Your task to perform on an android device: turn off improve location accuracy Image 0: 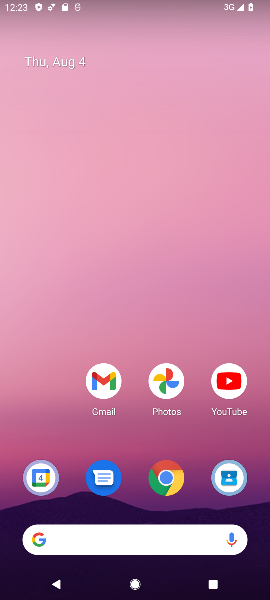
Step 0: drag from (99, 480) to (140, 2)
Your task to perform on an android device: turn off improve location accuracy Image 1: 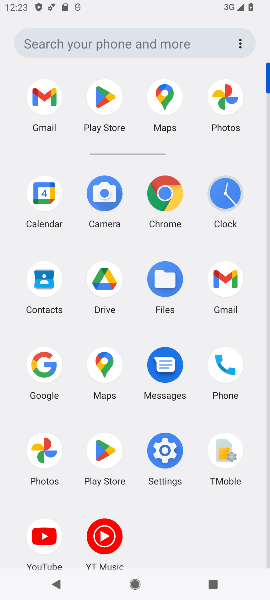
Step 1: click (161, 434)
Your task to perform on an android device: turn off improve location accuracy Image 2: 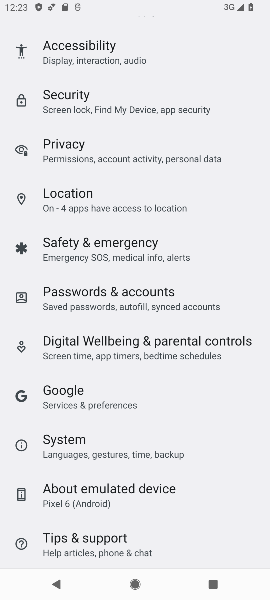
Step 2: drag from (108, 468) to (125, 88)
Your task to perform on an android device: turn off improve location accuracy Image 3: 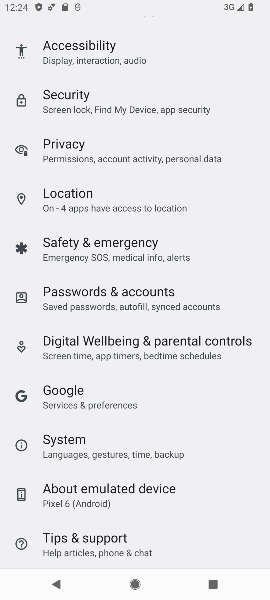
Step 3: click (103, 196)
Your task to perform on an android device: turn off improve location accuracy Image 4: 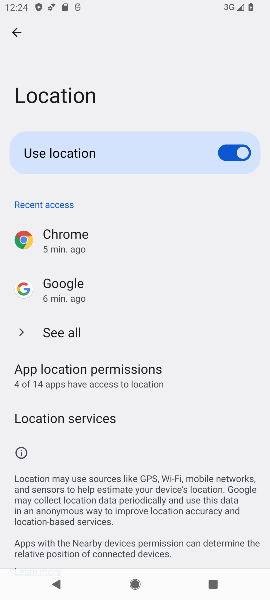
Step 4: drag from (157, 429) to (162, 210)
Your task to perform on an android device: turn off improve location accuracy Image 5: 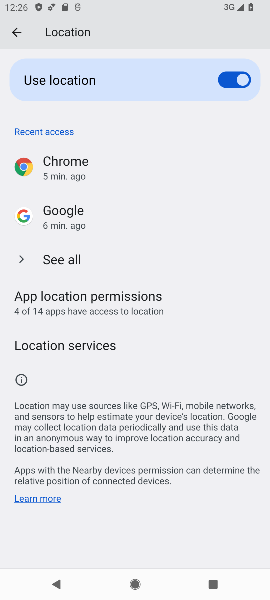
Step 5: drag from (203, 410) to (231, 222)
Your task to perform on an android device: turn off improve location accuracy Image 6: 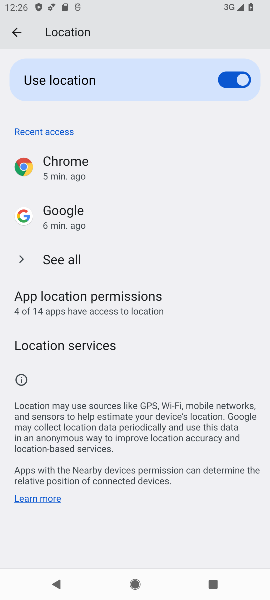
Step 6: click (69, 342)
Your task to perform on an android device: turn off improve location accuracy Image 7: 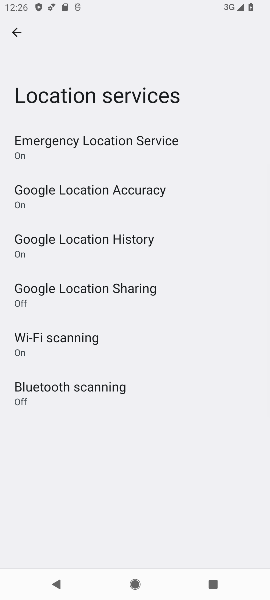
Step 7: click (116, 188)
Your task to perform on an android device: turn off improve location accuracy Image 8: 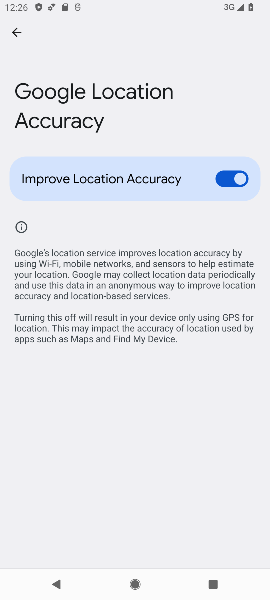
Step 8: task complete